Your task to perform on an android device: Do I have any events this weekend? Image 0: 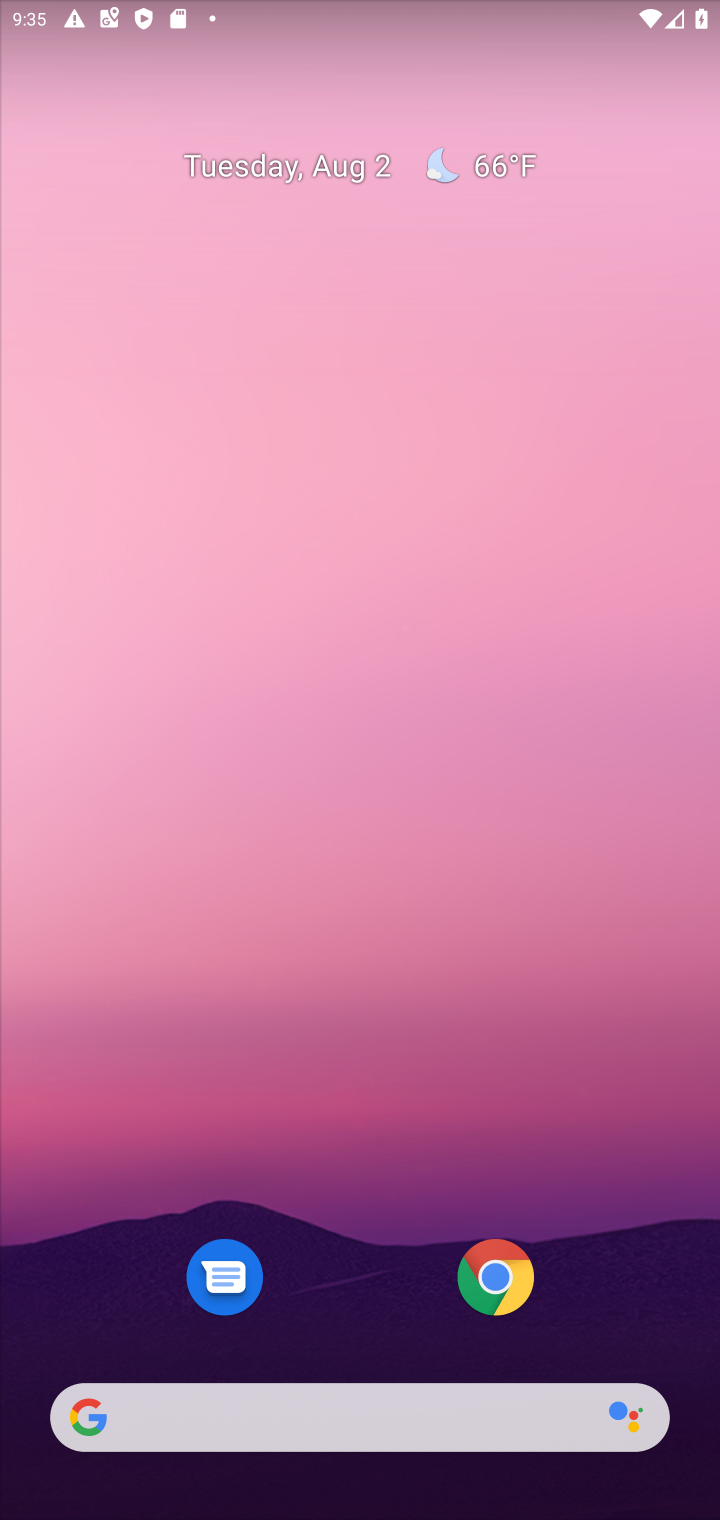
Step 0: drag from (321, 1155) to (295, 177)
Your task to perform on an android device: Do I have any events this weekend? Image 1: 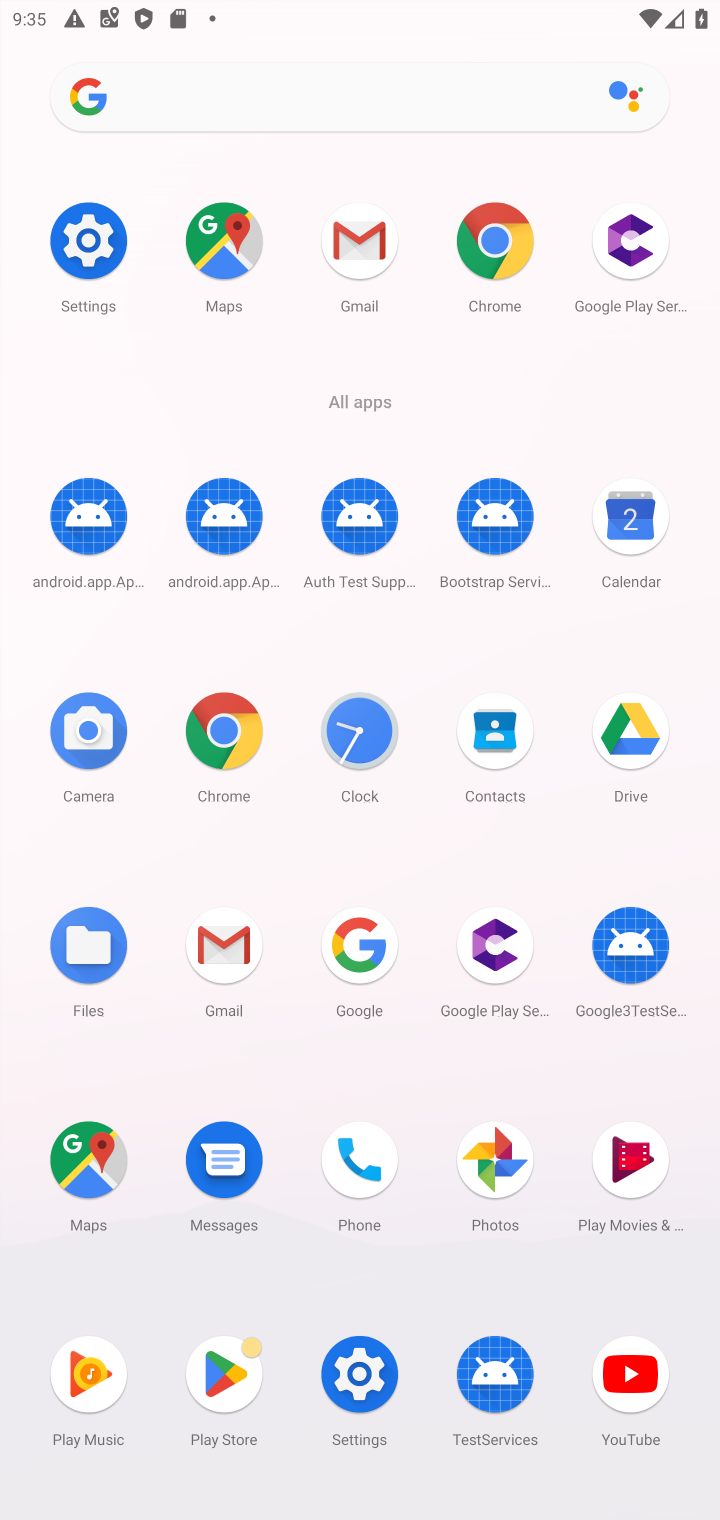
Step 1: click (627, 531)
Your task to perform on an android device: Do I have any events this weekend? Image 2: 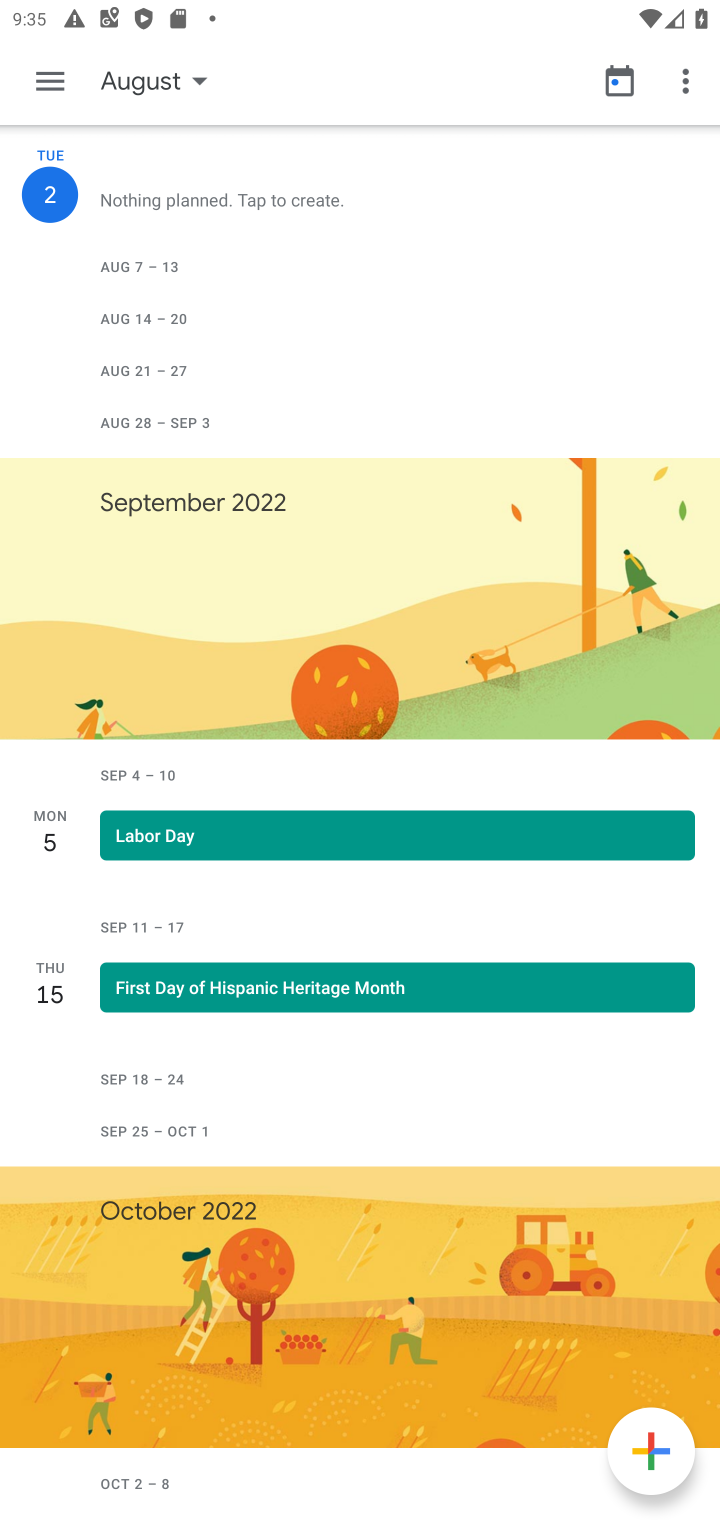
Step 2: task complete